Your task to perform on an android device: Go to sound settings Image 0: 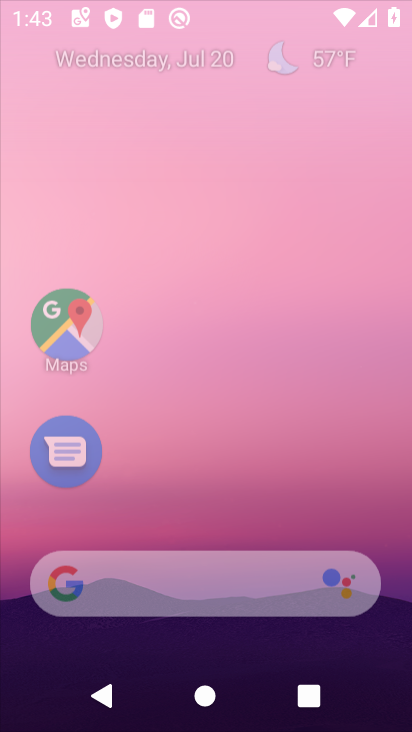
Step 0: click (193, 94)
Your task to perform on an android device: Go to sound settings Image 1: 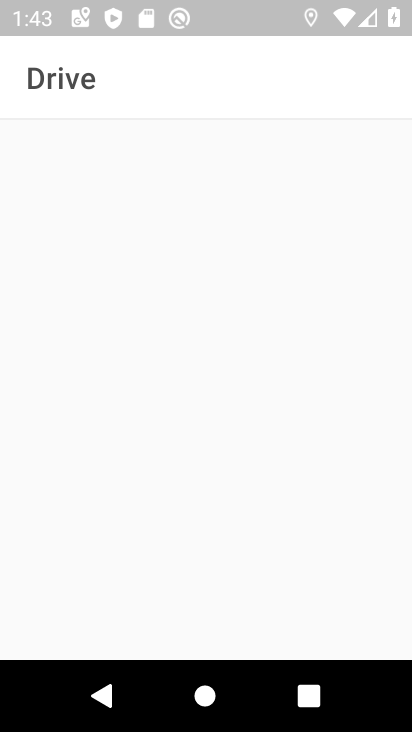
Step 1: press back button
Your task to perform on an android device: Go to sound settings Image 2: 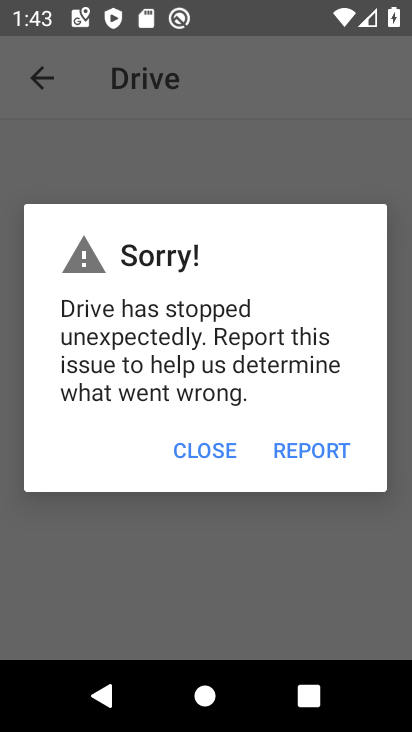
Step 2: press home button
Your task to perform on an android device: Go to sound settings Image 3: 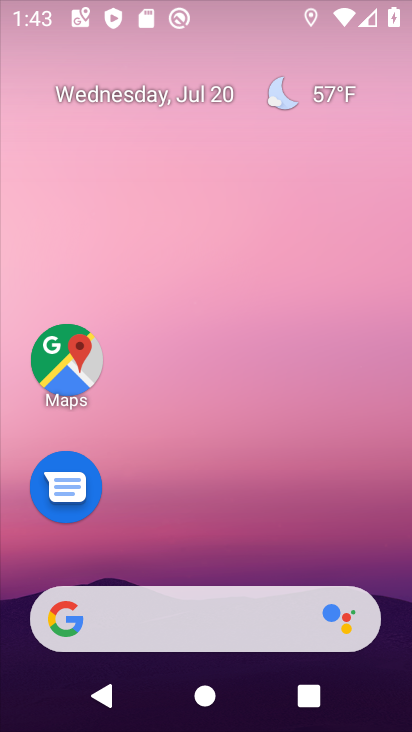
Step 3: drag from (148, 590) to (178, 61)
Your task to perform on an android device: Go to sound settings Image 4: 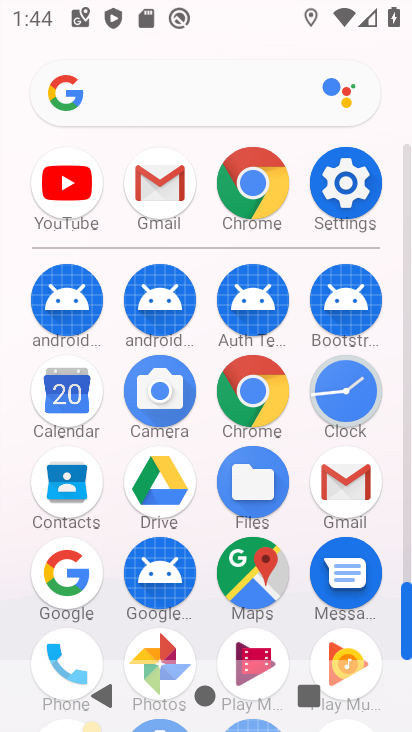
Step 4: click (329, 183)
Your task to perform on an android device: Go to sound settings Image 5: 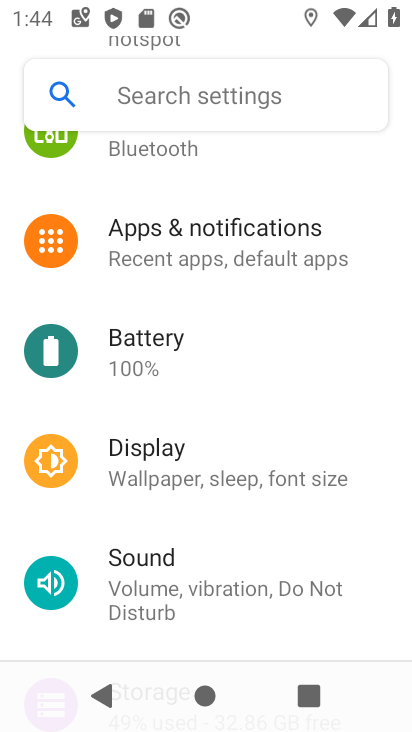
Step 5: click (173, 571)
Your task to perform on an android device: Go to sound settings Image 6: 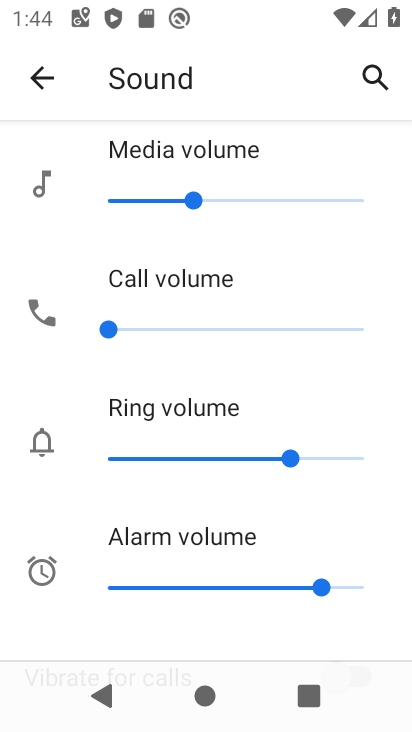
Step 6: task complete